Your task to perform on an android device: Do I have any events this weekend? Image 0: 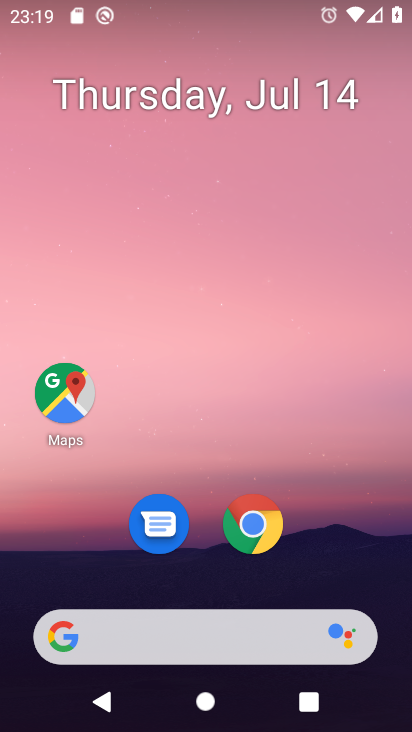
Step 0: drag from (340, 488) to (300, 13)
Your task to perform on an android device: Do I have any events this weekend? Image 1: 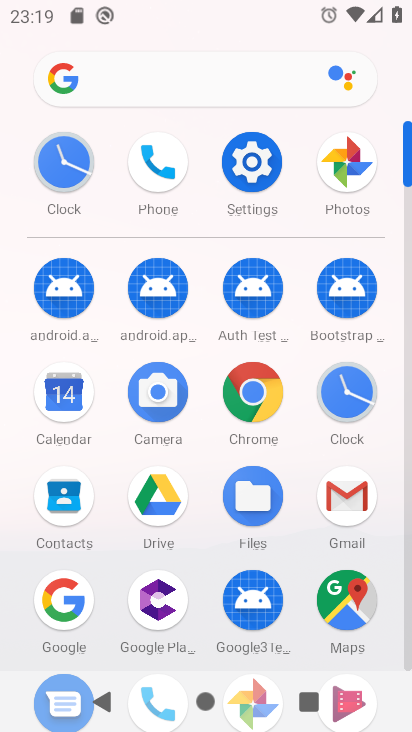
Step 1: click (68, 392)
Your task to perform on an android device: Do I have any events this weekend? Image 2: 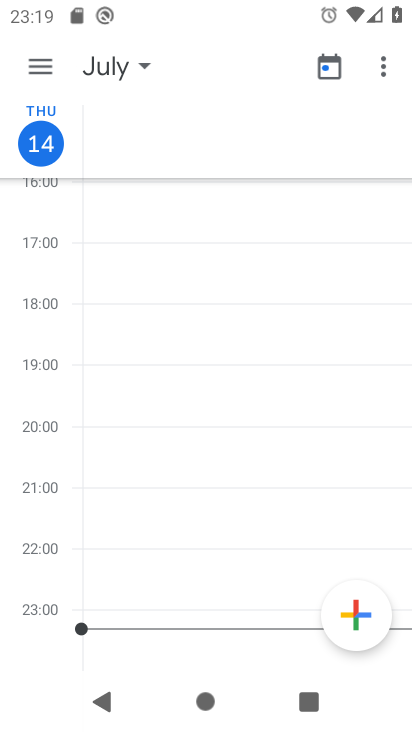
Step 2: click (38, 58)
Your task to perform on an android device: Do I have any events this weekend? Image 3: 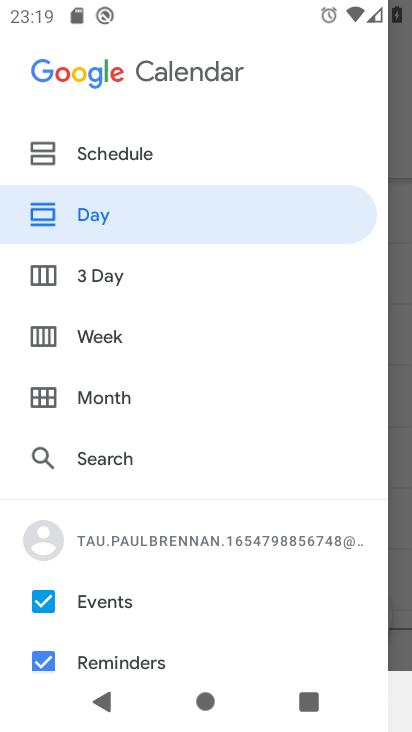
Step 3: click (45, 335)
Your task to perform on an android device: Do I have any events this weekend? Image 4: 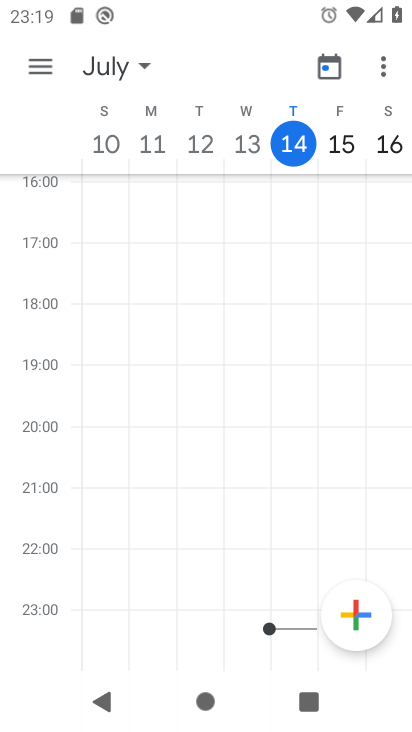
Step 4: click (391, 135)
Your task to perform on an android device: Do I have any events this weekend? Image 5: 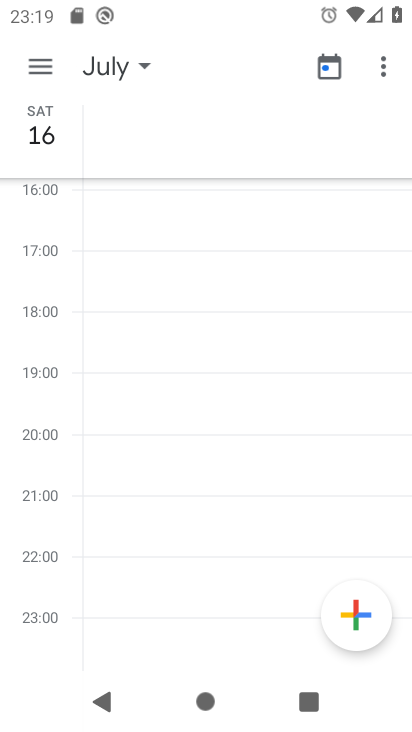
Step 5: task complete